Your task to perform on an android device: add a contact in the contacts app Image 0: 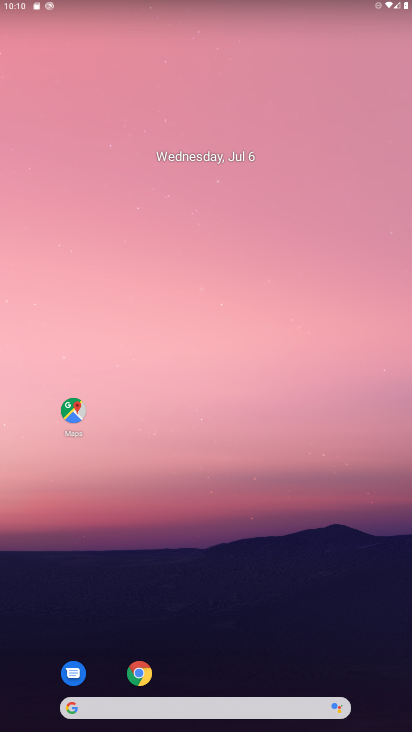
Step 0: drag from (218, 637) to (308, 151)
Your task to perform on an android device: add a contact in the contacts app Image 1: 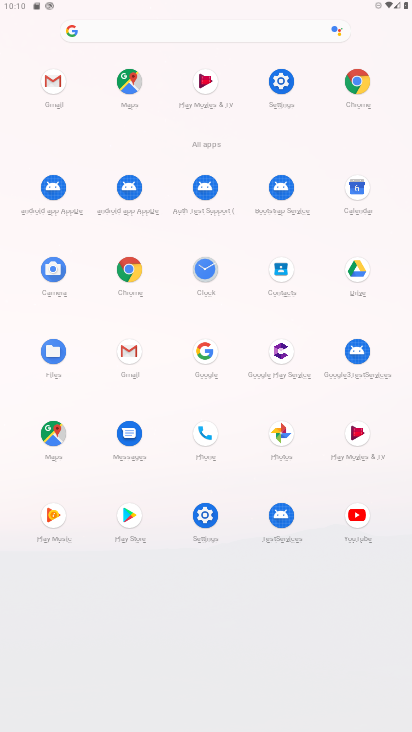
Step 1: click (276, 274)
Your task to perform on an android device: add a contact in the contacts app Image 2: 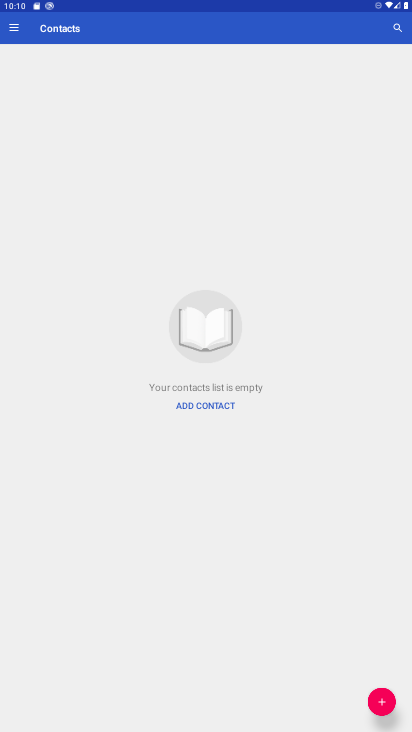
Step 2: click (386, 696)
Your task to perform on an android device: add a contact in the contacts app Image 3: 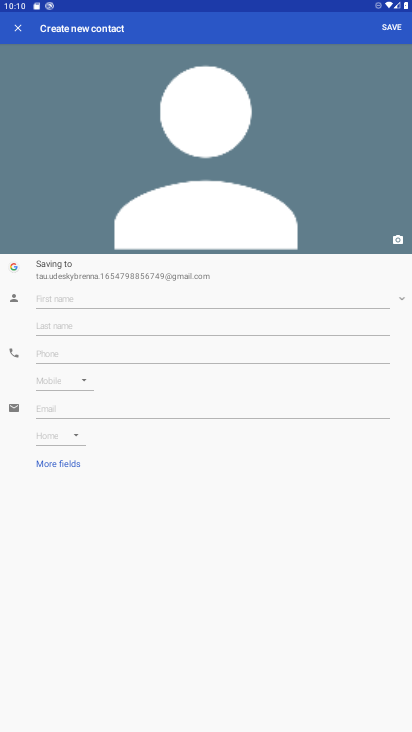
Step 3: type ""
Your task to perform on an android device: add a contact in the contacts app Image 4: 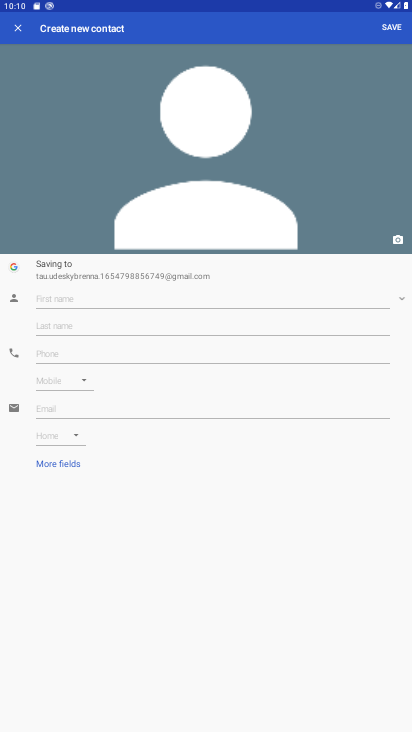
Step 4: type ".."
Your task to perform on an android device: add a contact in the contacts app Image 5: 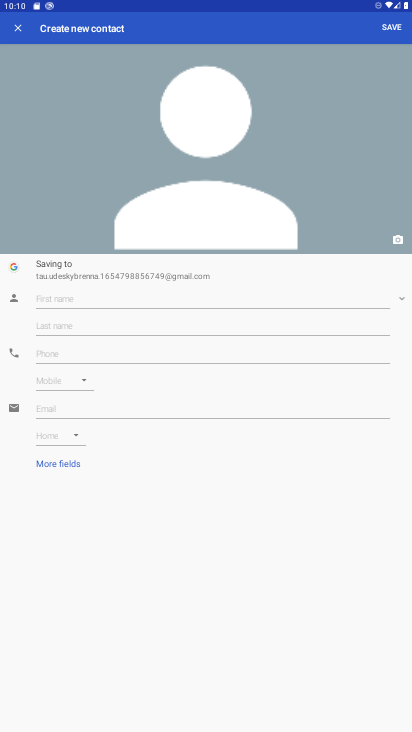
Step 5: click (100, 300)
Your task to perform on an android device: add a contact in the contacts app Image 6: 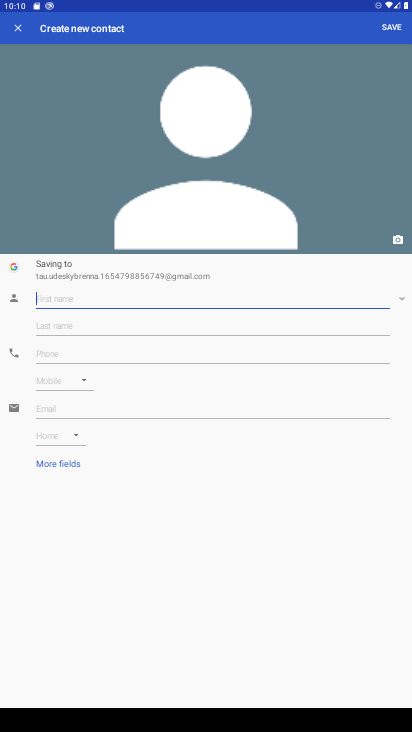
Step 6: type ".."
Your task to perform on an android device: add a contact in the contacts app Image 7: 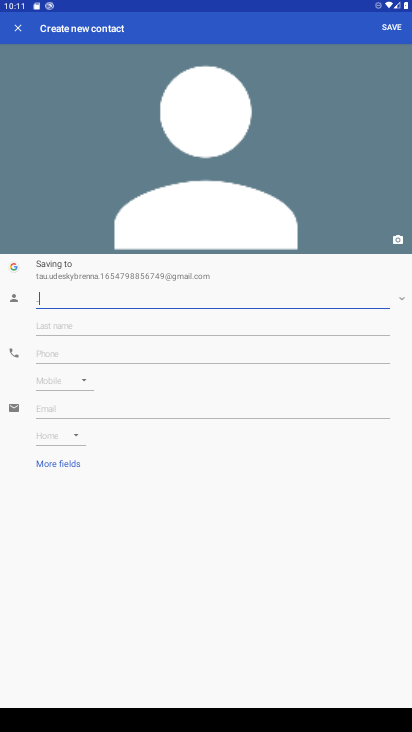
Step 7: type ",,"
Your task to perform on an android device: add a contact in the contacts app Image 8: 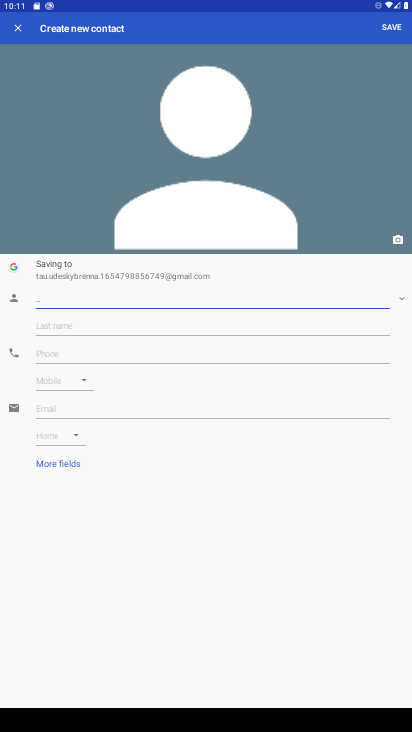
Step 8: click (109, 334)
Your task to perform on an android device: add a contact in the contacts app Image 9: 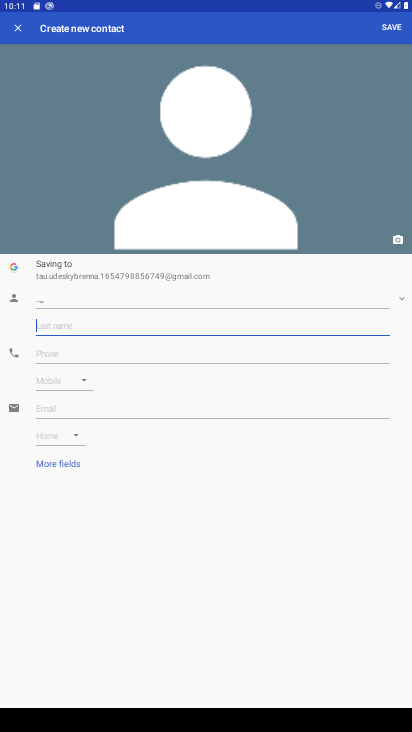
Step 9: type "456789o0987"
Your task to perform on an android device: add a contact in the contacts app Image 10: 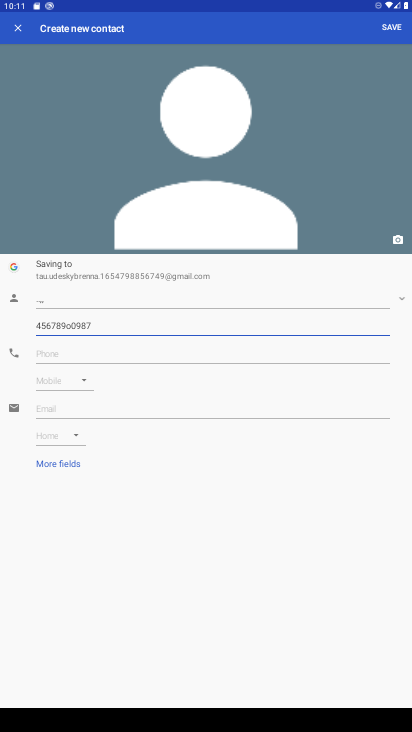
Step 10: click (395, 29)
Your task to perform on an android device: add a contact in the contacts app Image 11: 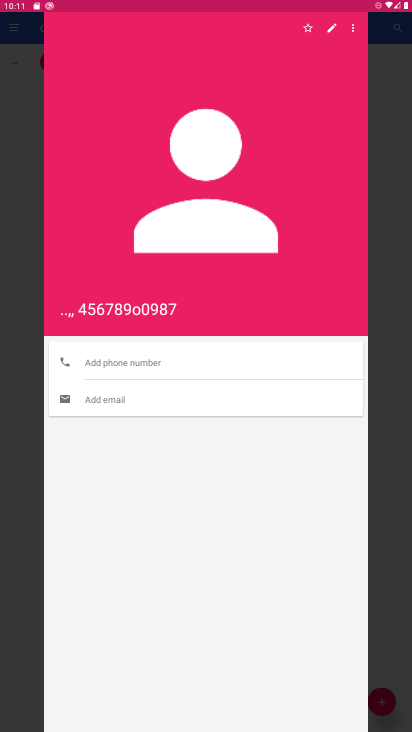
Step 11: click (127, 359)
Your task to perform on an android device: add a contact in the contacts app Image 12: 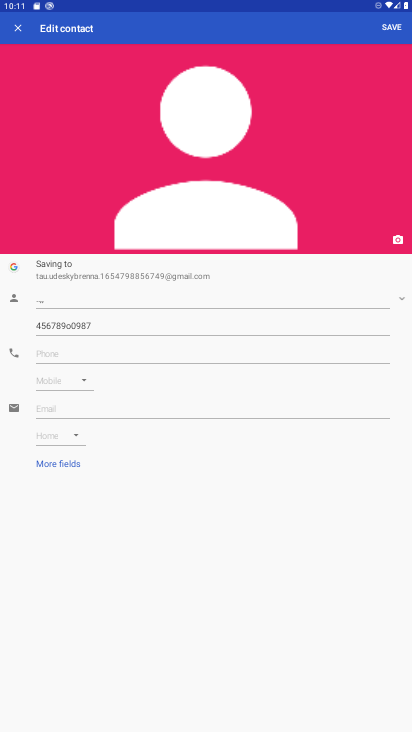
Step 12: type "98765432345678"
Your task to perform on an android device: add a contact in the contacts app Image 13: 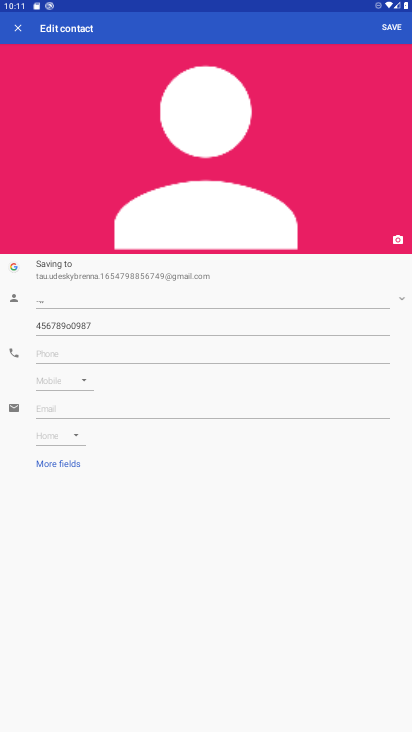
Step 13: click (59, 359)
Your task to perform on an android device: add a contact in the contacts app Image 14: 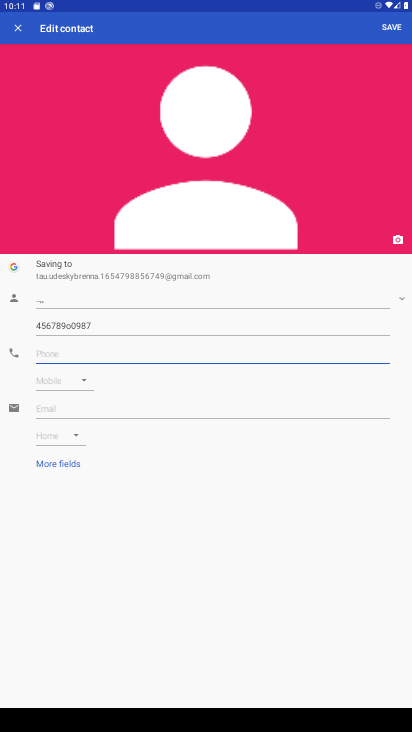
Step 14: type "87654e3w"
Your task to perform on an android device: add a contact in the contacts app Image 15: 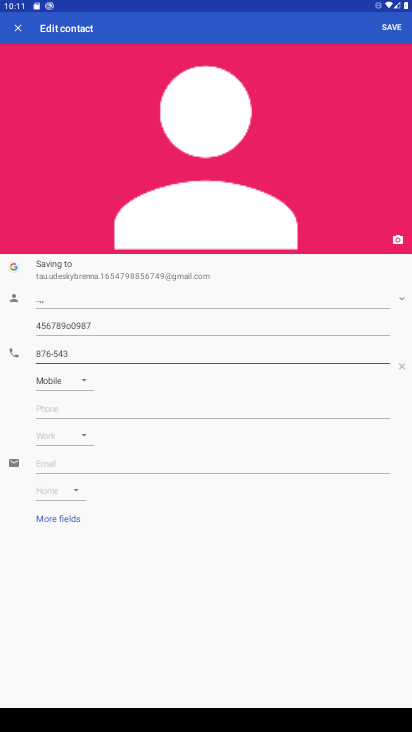
Step 15: click (395, 31)
Your task to perform on an android device: add a contact in the contacts app Image 16: 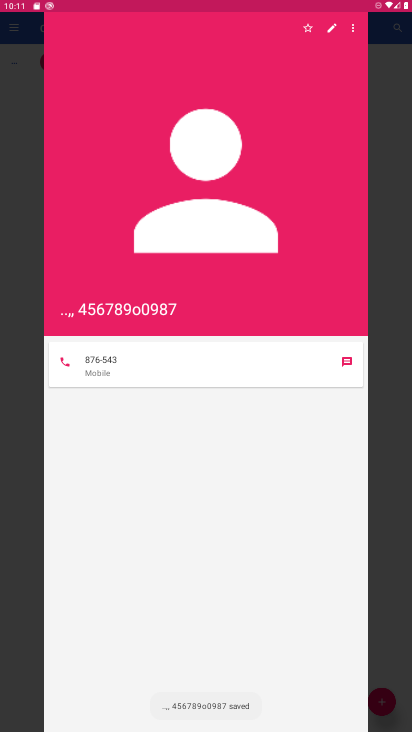
Step 16: task complete